Your task to perform on an android device: Go to display settings Image 0: 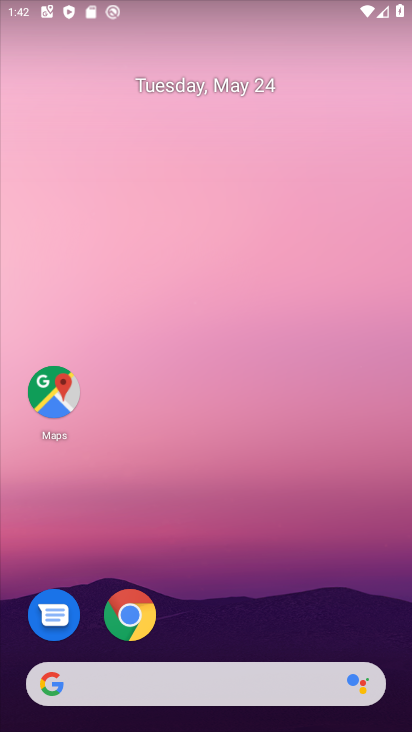
Step 0: press home button
Your task to perform on an android device: Go to display settings Image 1: 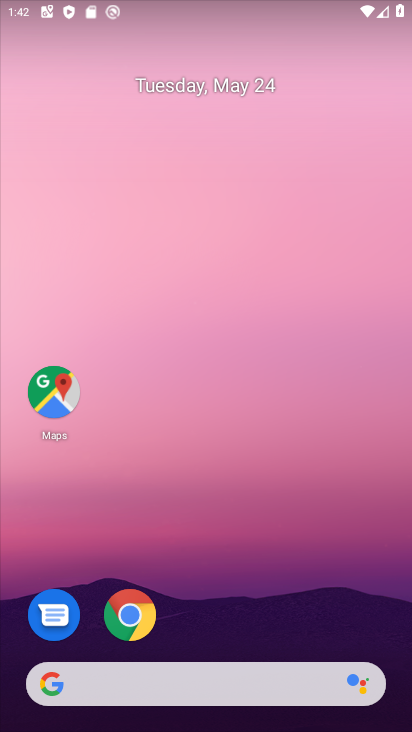
Step 1: drag from (210, 644) to (233, 62)
Your task to perform on an android device: Go to display settings Image 2: 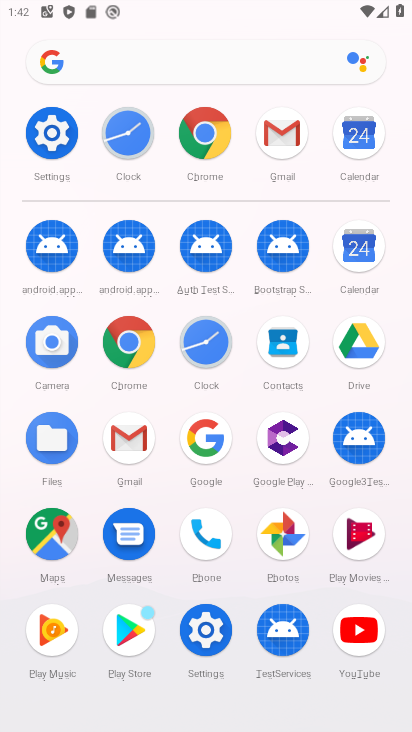
Step 2: click (51, 126)
Your task to perform on an android device: Go to display settings Image 3: 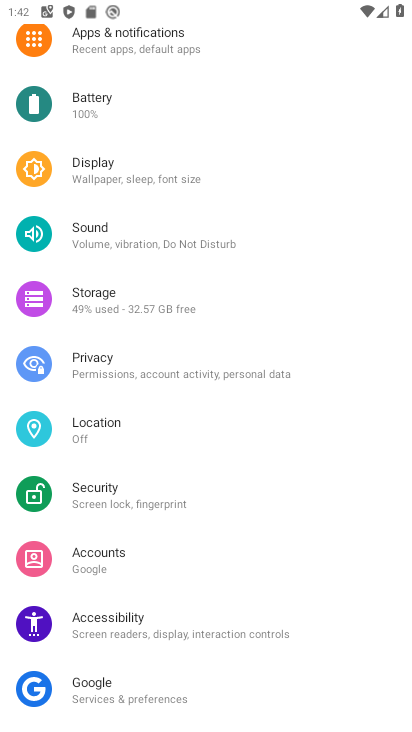
Step 3: click (133, 162)
Your task to perform on an android device: Go to display settings Image 4: 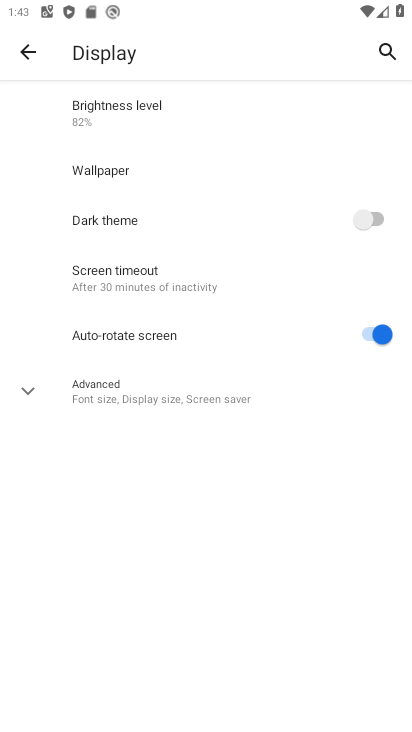
Step 4: click (30, 389)
Your task to perform on an android device: Go to display settings Image 5: 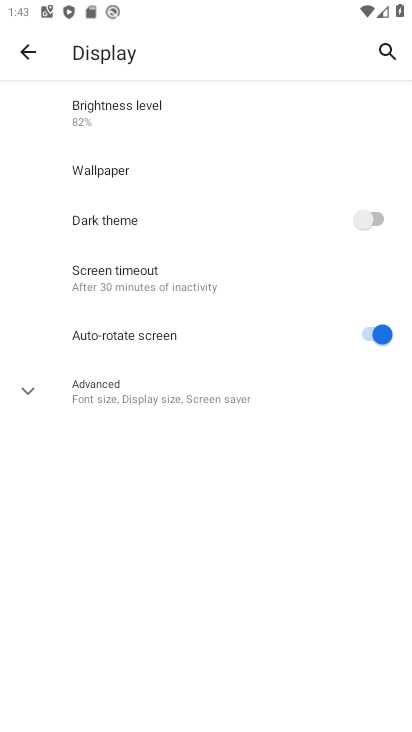
Step 5: click (30, 389)
Your task to perform on an android device: Go to display settings Image 6: 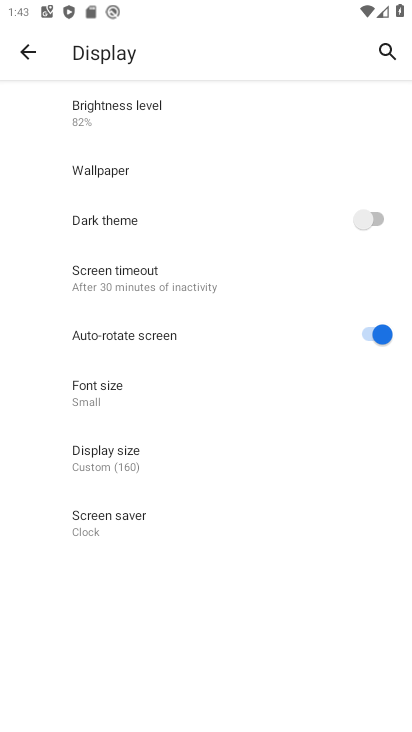
Step 6: task complete